Your task to perform on an android device: change alarm snooze length Image 0: 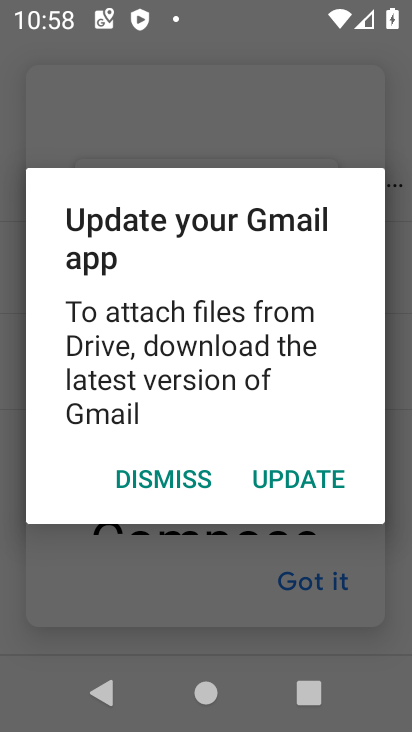
Step 0: press home button
Your task to perform on an android device: change alarm snooze length Image 1: 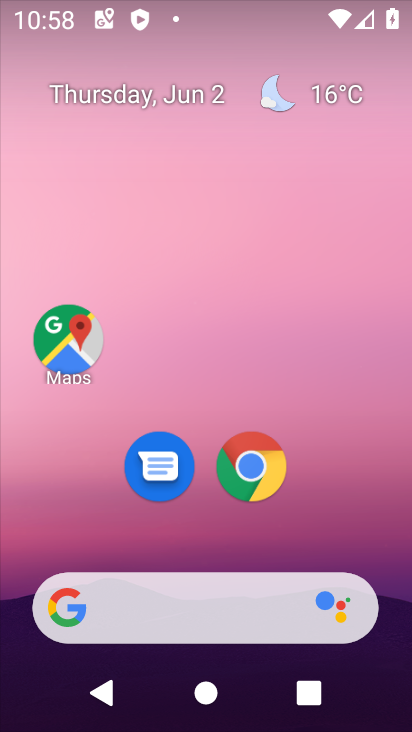
Step 1: drag from (195, 553) to (209, 96)
Your task to perform on an android device: change alarm snooze length Image 2: 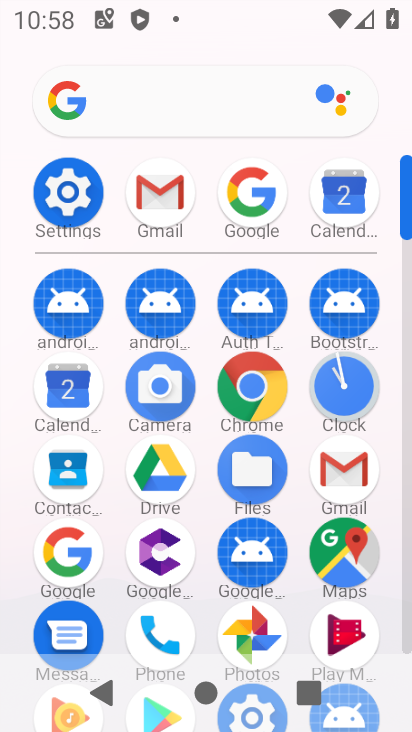
Step 2: click (334, 390)
Your task to perform on an android device: change alarm snooze length Image 3: 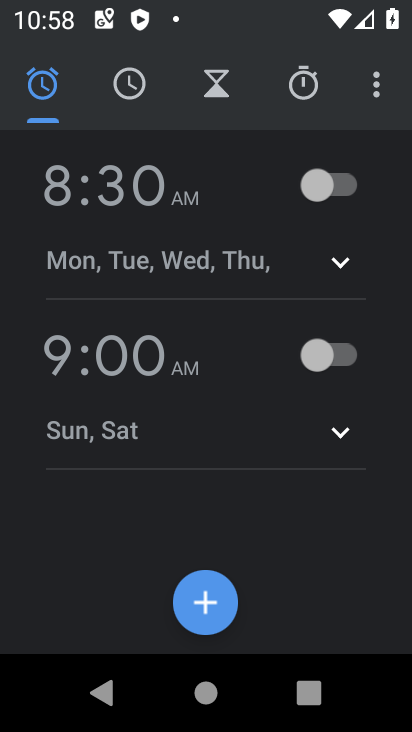
Step 3: click (374, 88)
Your task to perform on an android device: change alarm snooze length Image 4: 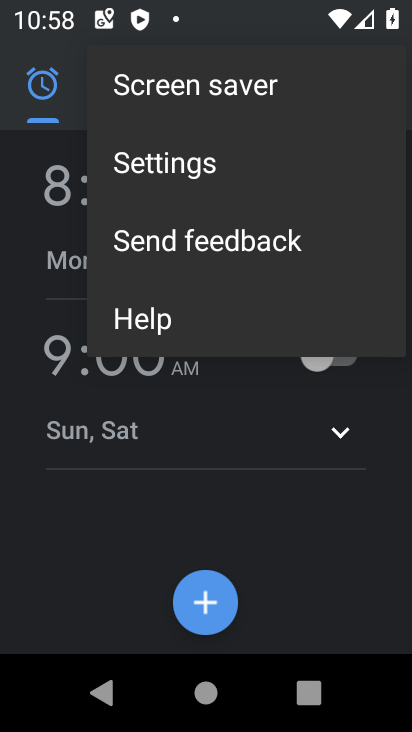
Step 4: click (193, 166)
Your task to perform on an android device: change alarm snooze length Image 5: 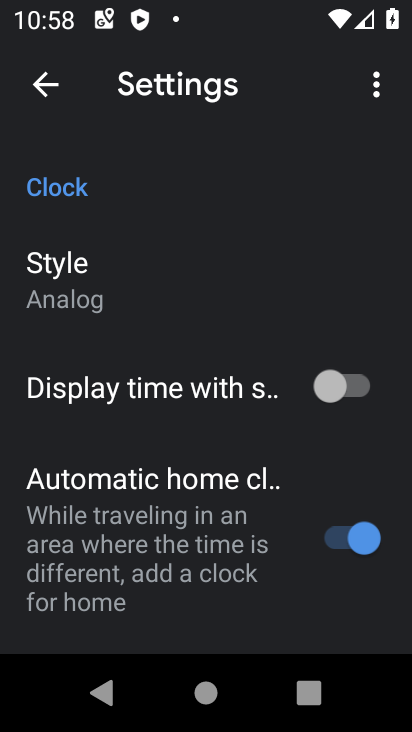
Step 5: click (178, 254)
Your task to perform on an android device: change alarm snooze length Image 6: 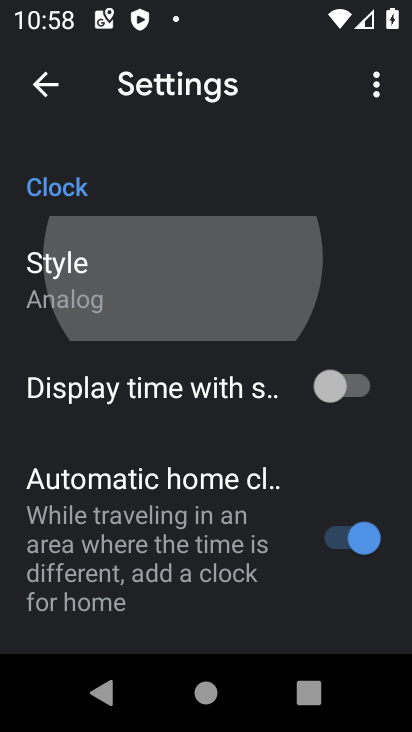
Step 6: drag from (172, 633) to (197, 307)
Your task to perform on an android device: change alarm snooze length Image 7: 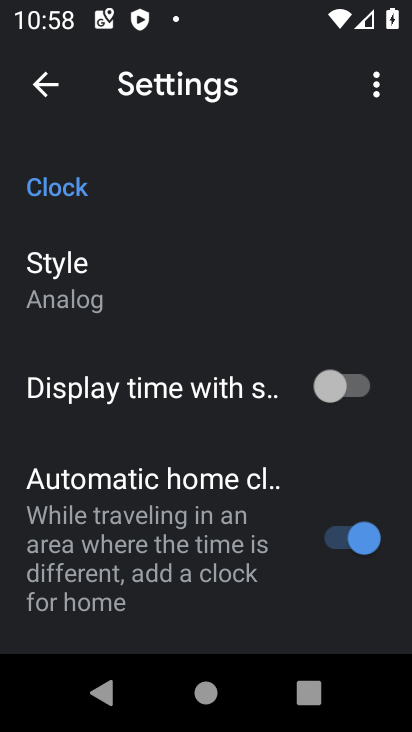
Step 7: drag from (197, 503) to (229, 179)
Your task to perform on an android device: change alarm snooze length Image 8: 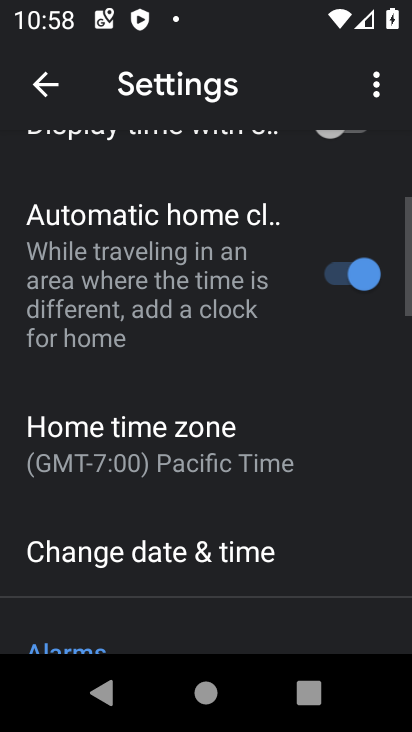
Step 8: drag from (196, 554) to (257, 224)
Your task to perform on an android device: change alarm snooze length Image 9: 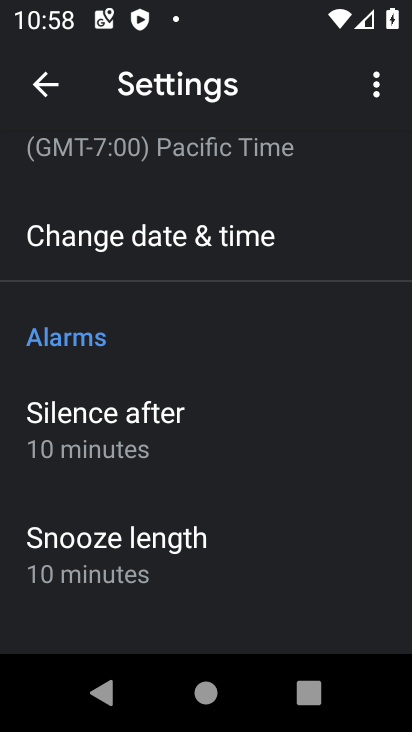
Step 9: click (198, 546)
Your task to perform on an android device: change alarm snooze length Image 10: 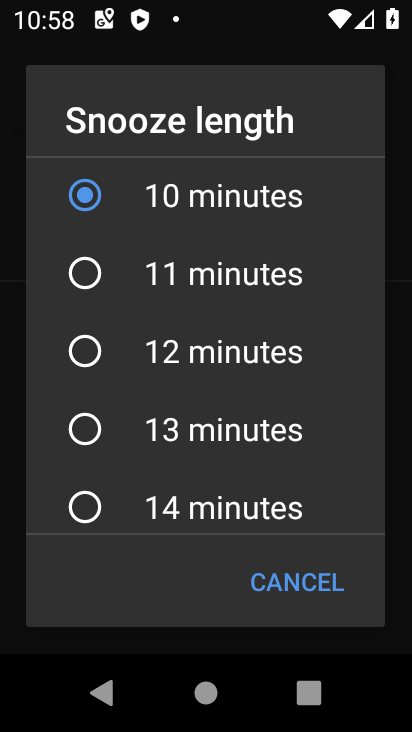
Step 10: click (199, 428)
Your task to perform on an android device: change alarm snooze length Image 11: 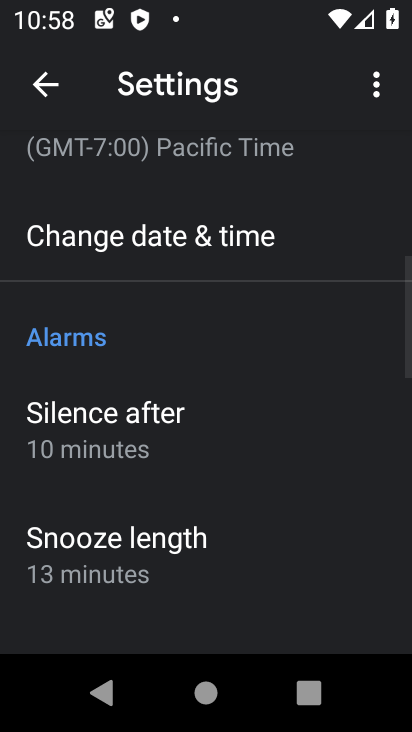
Step 11: task complete